Your task to perform on an android device: all mails in gmail Image 0: 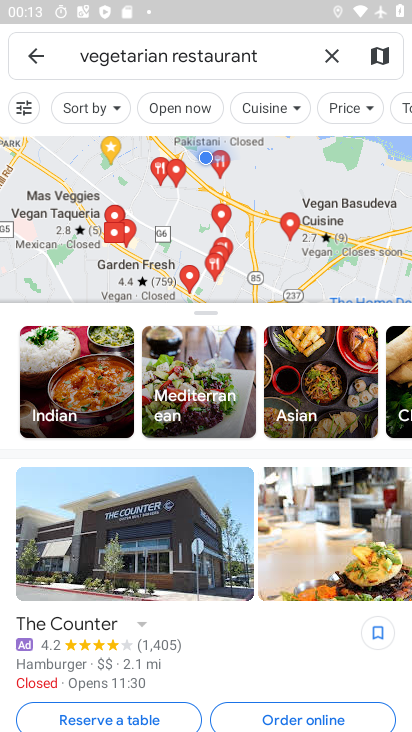
Step 0: press home button
Your task to perform on an android device: all mails in gmail Image 1: 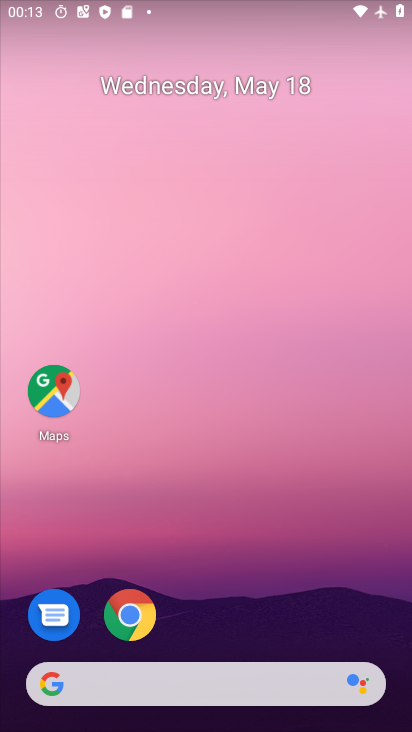
Step 1: drag from (247, 642) to (237, 206)
Your task to perform on an android device: all mails in gmail Image 2: 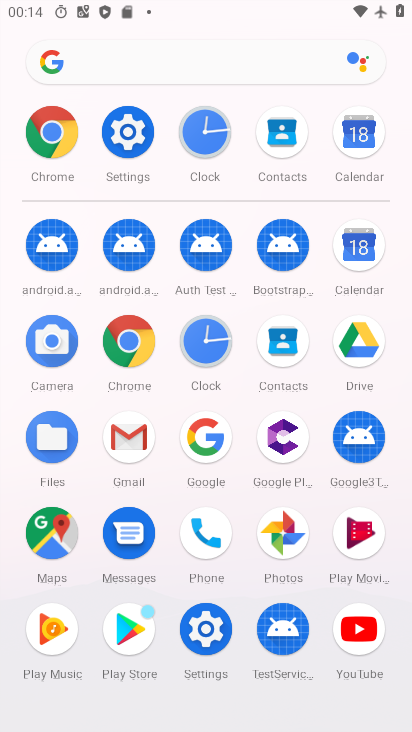
Step 2: drag from (179, 363) to (181, 314)
Your task to perform on an android device: all mails in gmail Image 3: 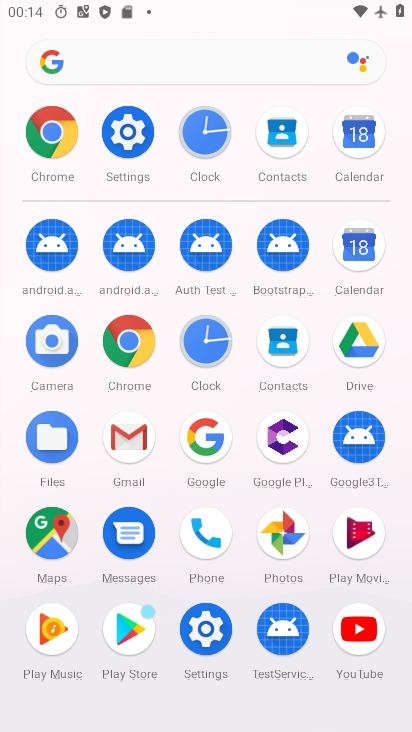
Step 3: click (137, 453)
Your task to perform on an android device: all mails in gmail Image 4: 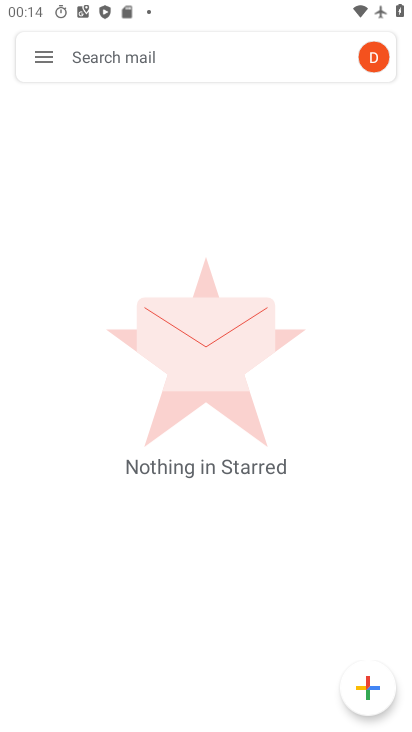
Step 4: click (39, 60)
Your task to perform on an android device: all mails in gmail Image 5: 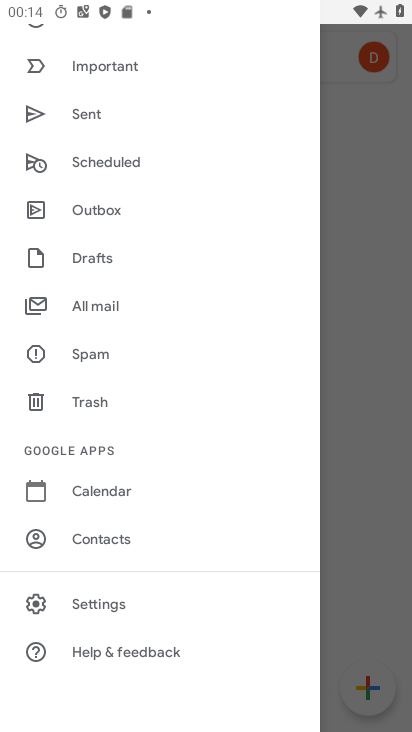
Step 5: click (108, 310)
Your task to perform on an android device: all mails in gmail Image 6: 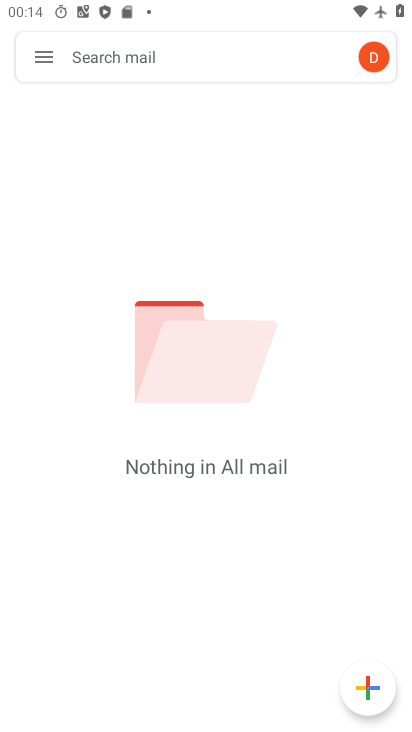
Step 6: task complete